Your task to perform on an android device: change your default location settings in chrome Image 0: 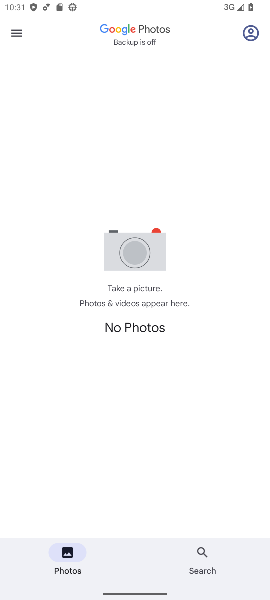
Step 0: press home button
Your task to perform on an android device: change your default location settings in chrome Image 1: 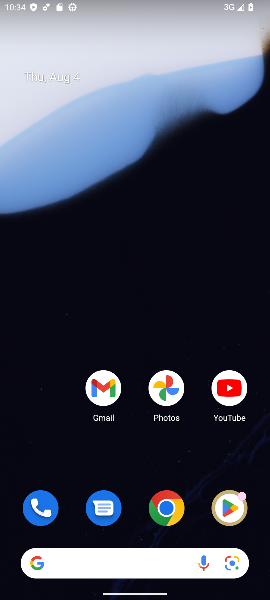
Step 1: task complete